Your task to perform on an android device: set the timer Image 0: 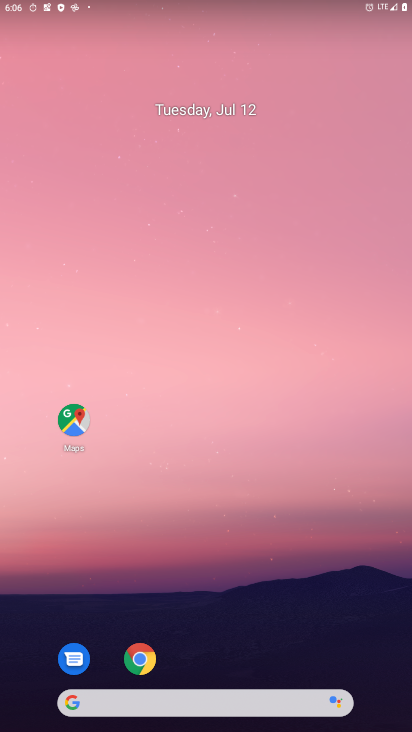
Step 0: press home button
Your task to perform on an android device: set the timer Image 1: 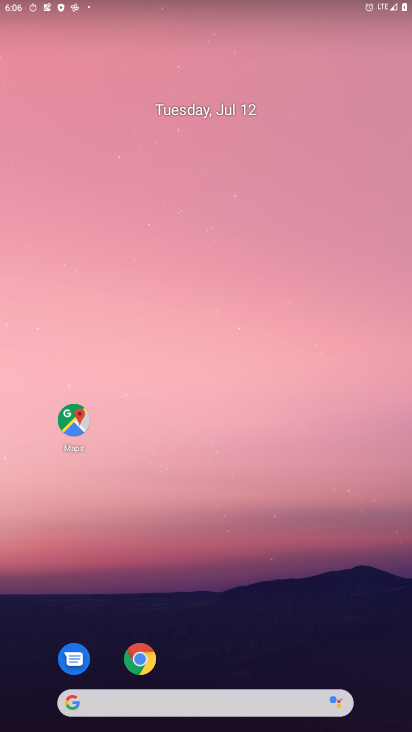
Step 1: drag from (221, 502) to (232, 62)
Your task to perform on an android device: set the timer Image 2: 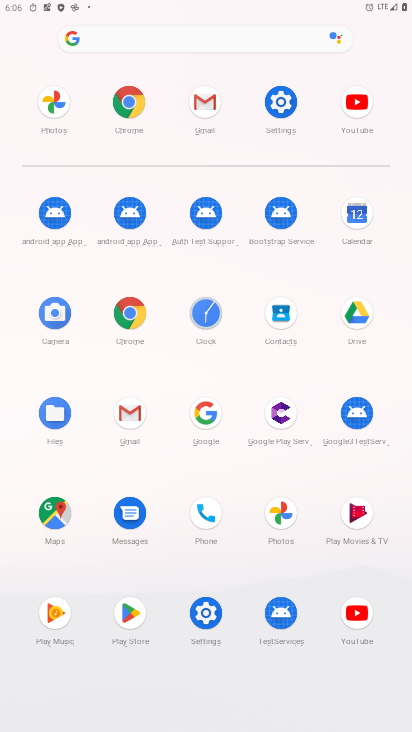
Step 2: click (205, 323)
Your task to perform on an android device: set the timer Image 3: 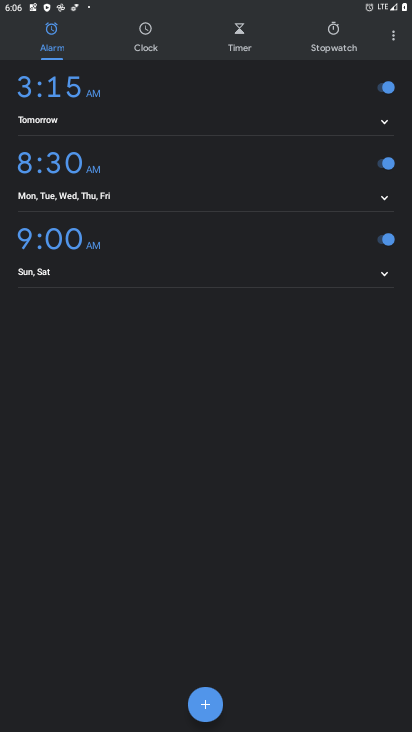
Step 3: click (251, 43)
Your task to perform on an android device: set the timer Image 4: 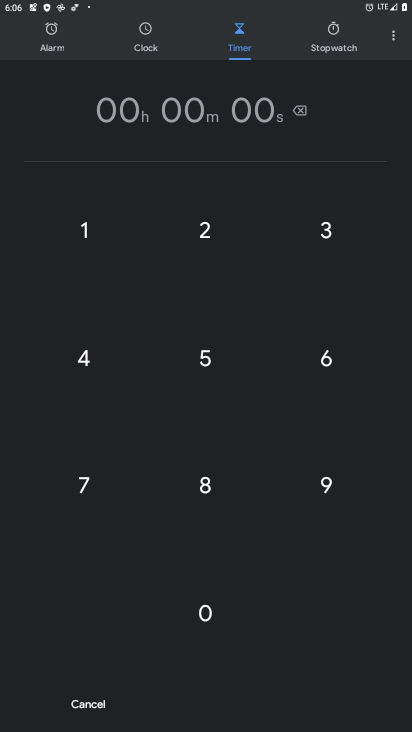
Step 4: click (194, 242)
Your task to perform on an android device: set the timer Image 5: 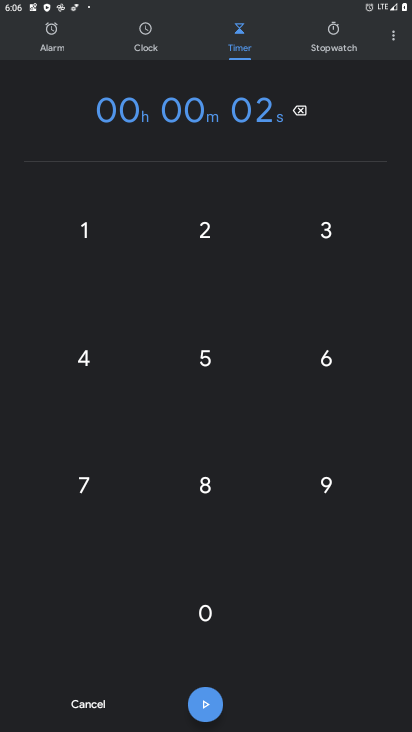
Step 5: click (206, 624)
Your task to perform on an android device: set the timer Image 6: 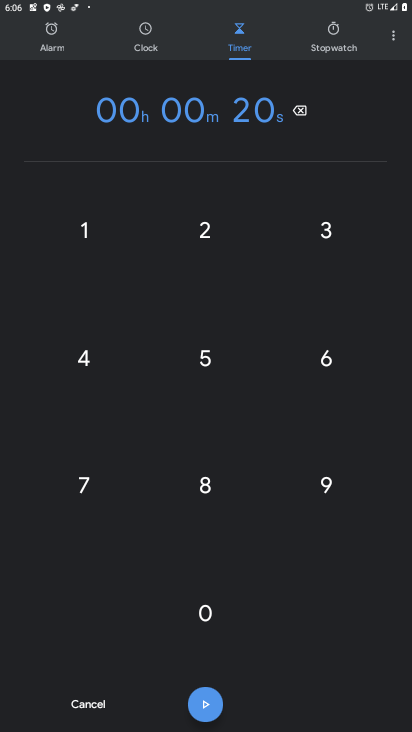
Step 6: click (206, 624)
Your task to perform on an android device: set the timer Image 7: 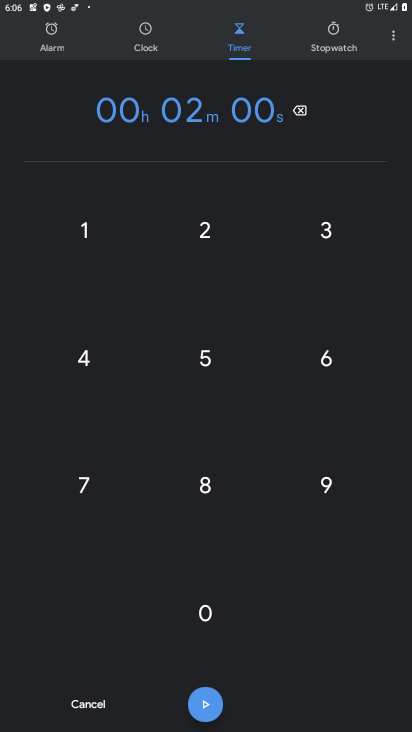
Step 7: click (206, 624)
Your task to perform on an android device: set the timer Image 8: 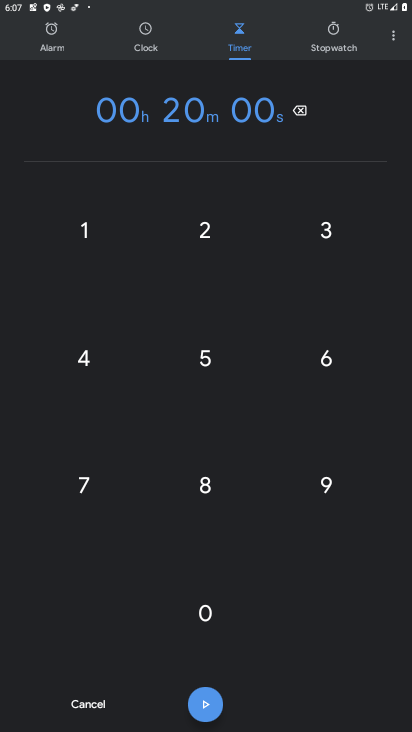
Step 8: click (206, 699)
Your task to perform on an android device: set the timer Image 9: 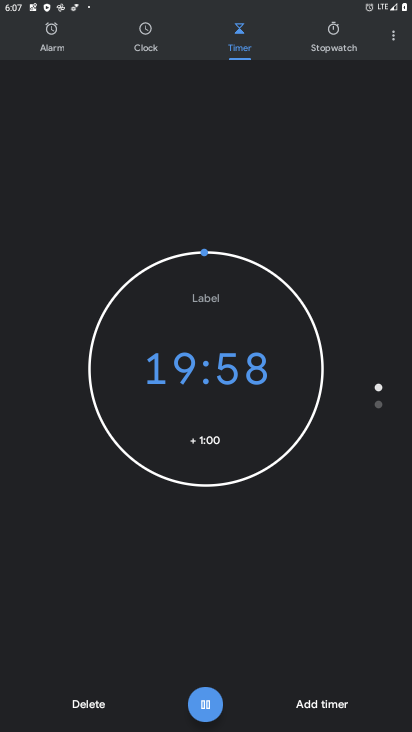
Step 9: click (334, 703)
Your task to perform on an android device: set the timer Image 10: 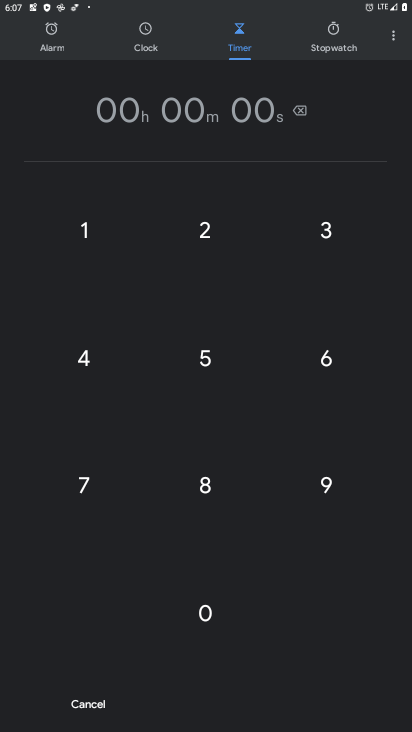
Step 10: task complete